Your task to perform on an android device: star an email in the gmail app Image 0: 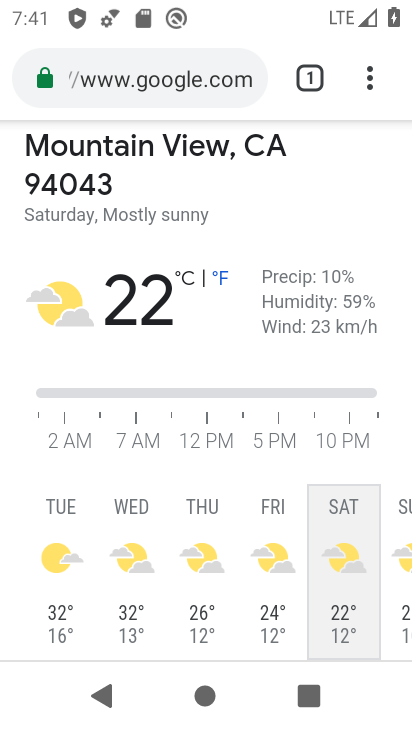
Step 0: press home button
Your task to perform on an android device: star an email in the gmail app Image 1: 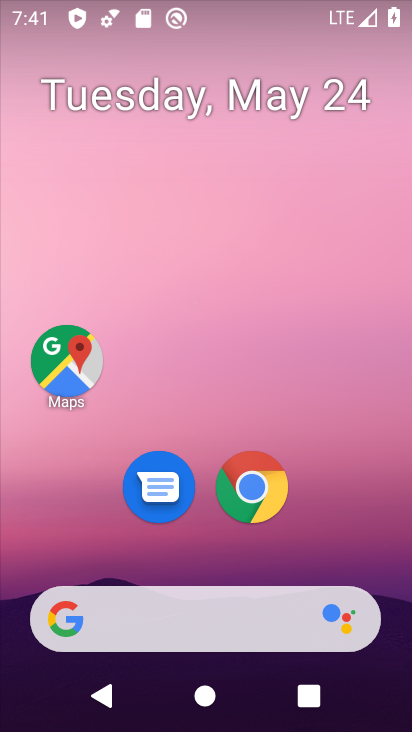
Step 1: drag from (295, 553) to (284, 65)
Your task to perform on an android device: star an email in the gmail app Image 2: 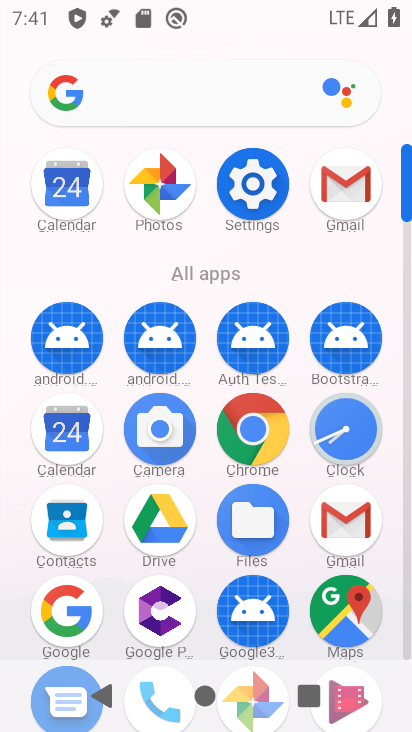
Step 2: click (343, 515)
Your task to perform on an android device: star an email in the gmail app Image 3: 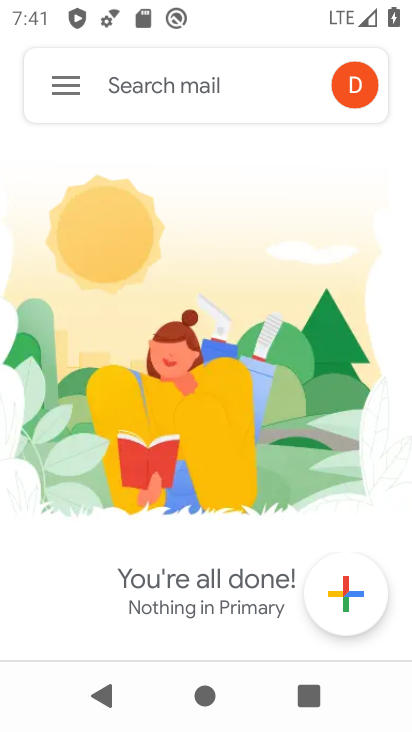
Step 3: task complete